Your task to perform on an android device: check google app version Image 0: 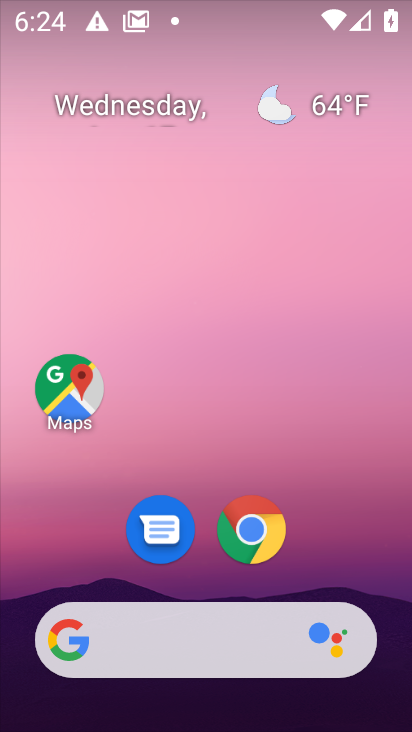
Step 0: drag from (197, 546) to (184, 209)
Your task to perform on an android device: check google app version Image 1: 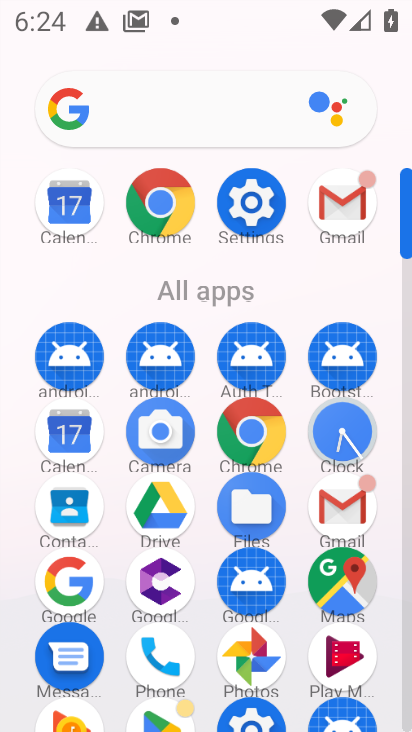
Step 1: click (62, 568)
Your task to perform on an android device: check google app version Image 2: 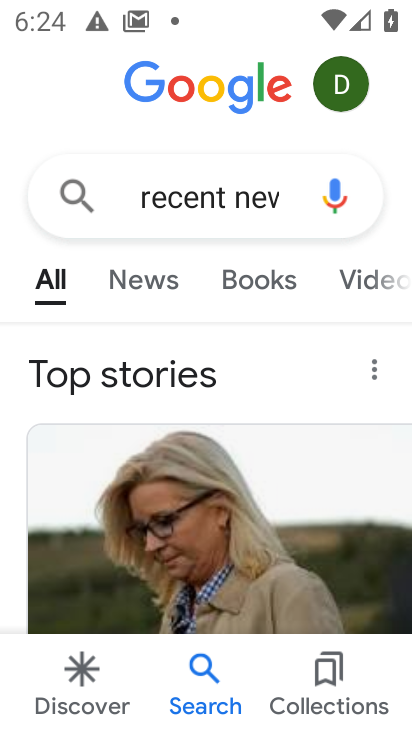
Step 2: click (357, 91)
Your task to perform on an android device: check google app version Image 3: 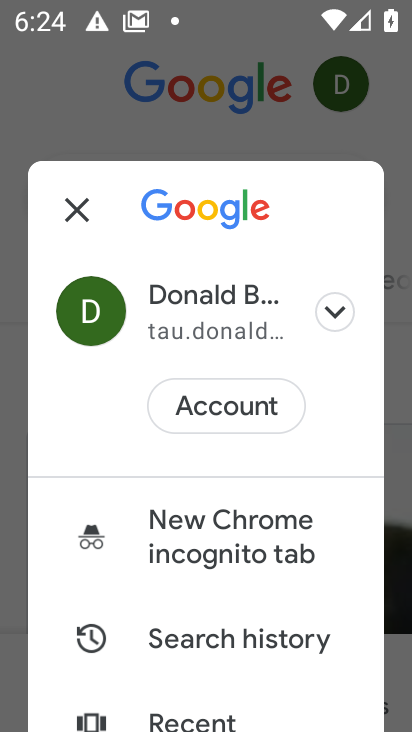
Step 3: drag from (185, 671) to (192, 329)
Your task to perform on an android device: check google app version Image 4: 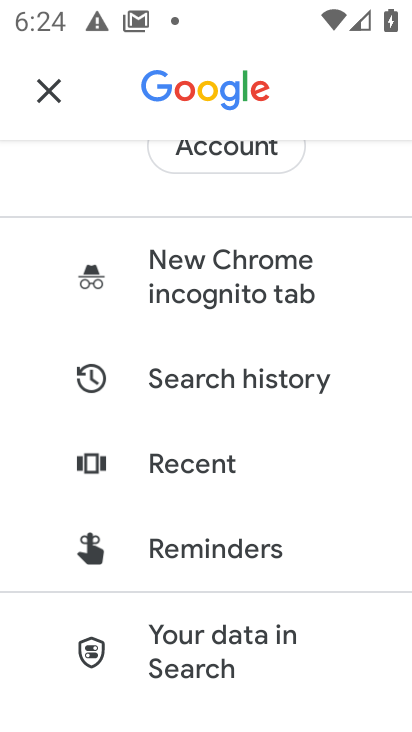
Step 4: drag from (237, 600) to (224, 345)
Your task to perform on an android device: check google app version Image 5: 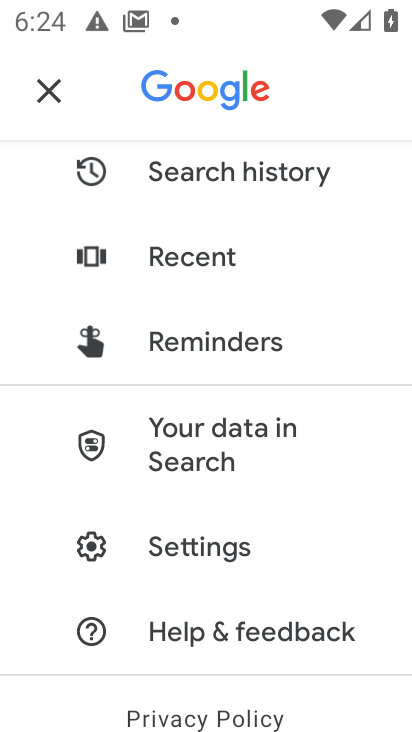
Step 5: click (176, 552)
Your task to perform on an android device: check google app version Image 6: 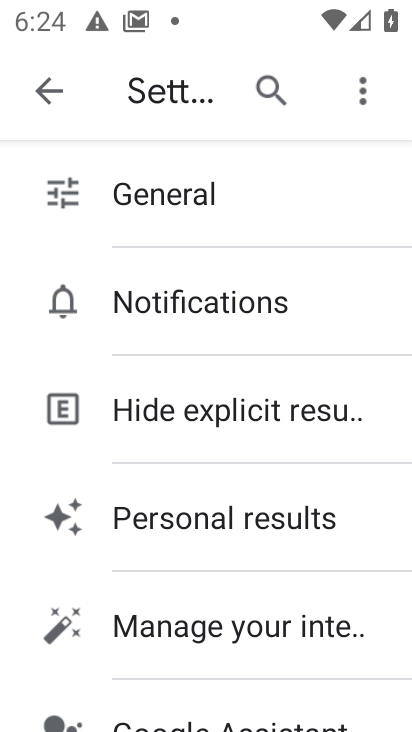
Step 6: drag from (289, 585) to (278, 364)
Your task to perform on an android device: check google app version Image 7: 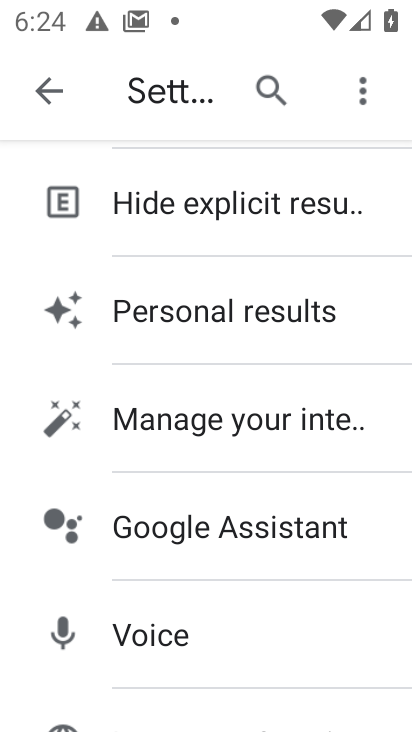
Step 7: drag from (261, 660) to (261, 279)
Your task to perform on an android device: check google app version Image 8: 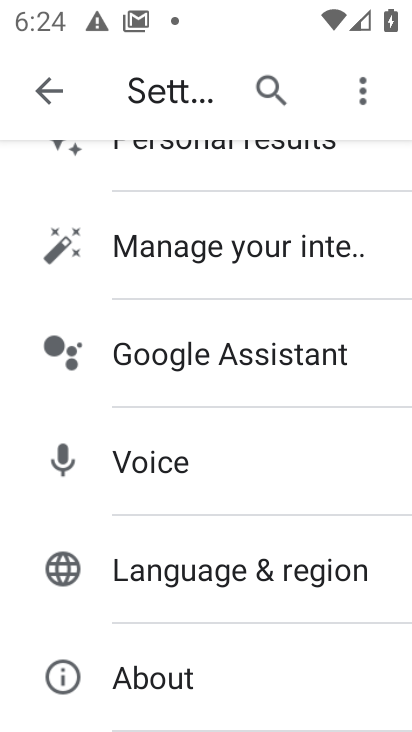
Step 8: click (141, 678)
Your task to perform on an android device: check google app version Image 9: 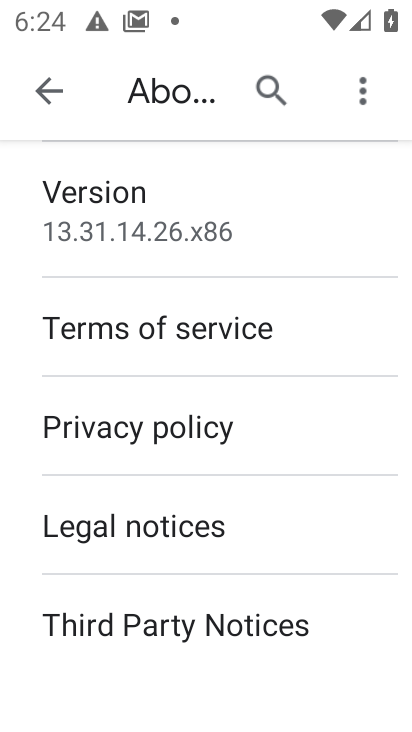
Step 9: task complete